Your task to perform on an android device: change keyboard looks Image 0: 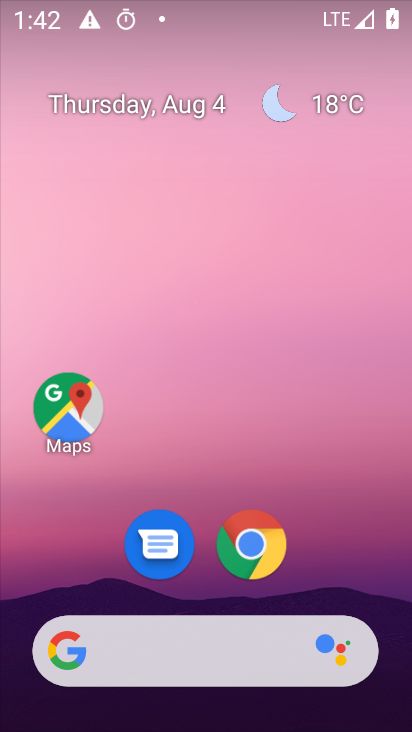
Step 0: drag from (388, 636) to (331, 34)
Your task to perform on an android device: change keyboard looks Image 1: 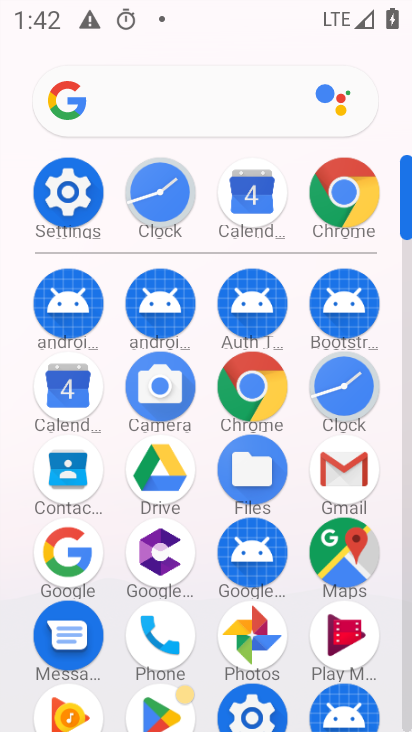
Step 1: click (79, 206)
Your task to perform on an android device: change keyboard looks Image 2: 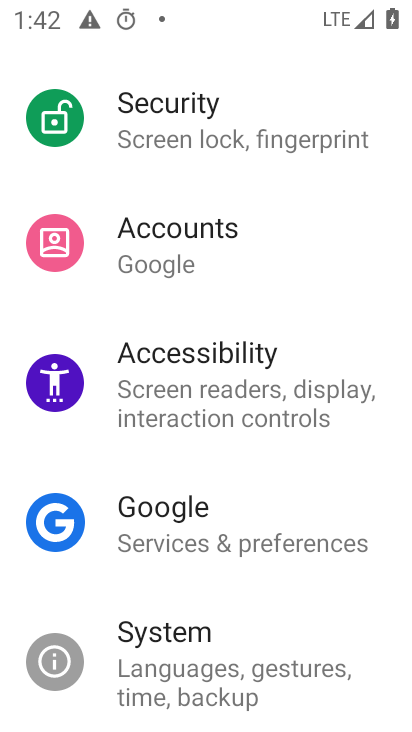
Step 2: drag from (338, 634) to (284, 150)
Your task to perform on an android device: change keyboard looks Image 3: 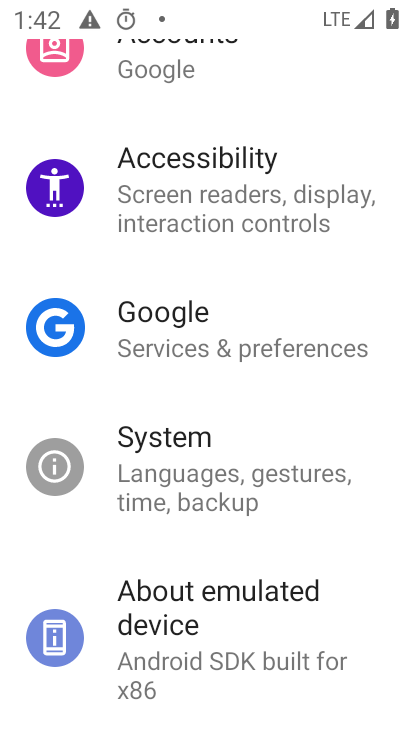
Step 3: click (161, 435)
Your task to perform on an android device: change keyboard looks Image 4: 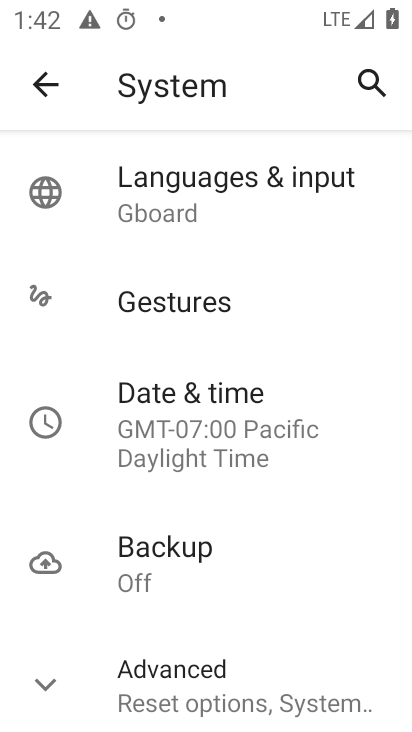
Step 4: drag from (259, 632) to (284, 281)
Your task to perform on an android device: change keyboard looks Image 5: 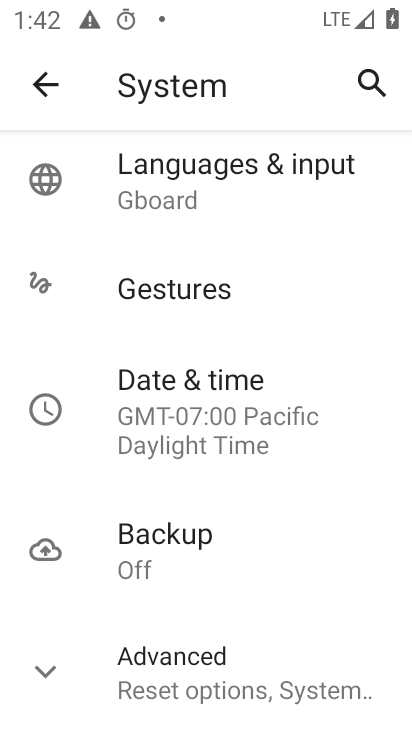
Step 5: drag from (305, 249) to (310, 612)
Your task to perform on an android device: change keyboard looks Image 6: 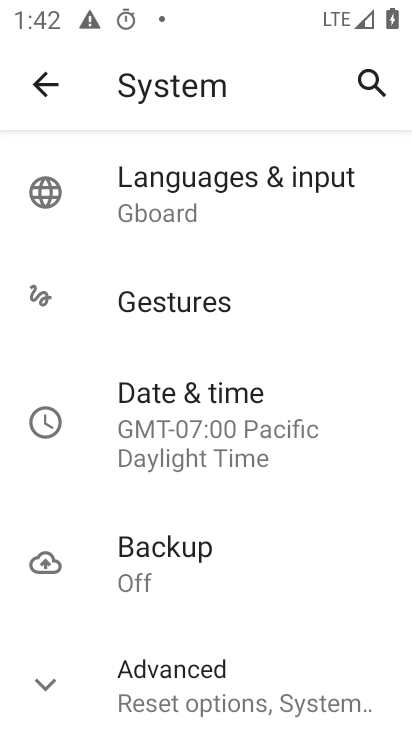
Step 6: click (187, 178)
Your task to perform on an android device: change keyboard looks Image 7: 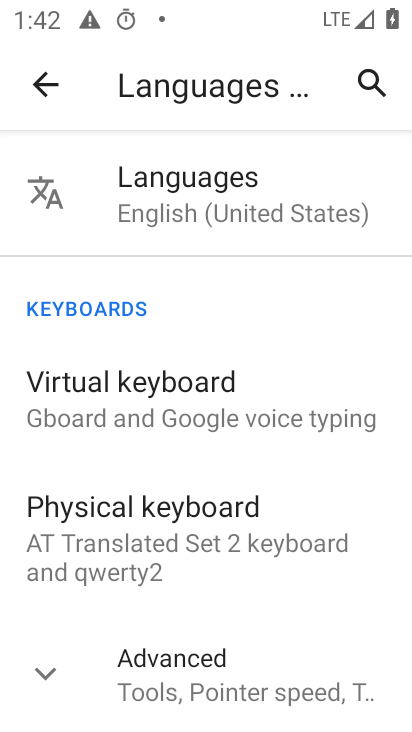
Step 7: click (82, 368)
Your task to perform on an android device: change keyboard looks Image 8: 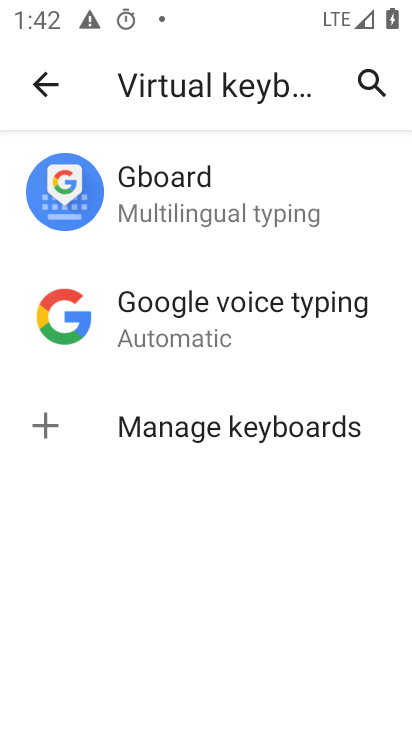
Step 8: click (158, 183)
Your task to perform on an android device: change keyboard looks Image 9: 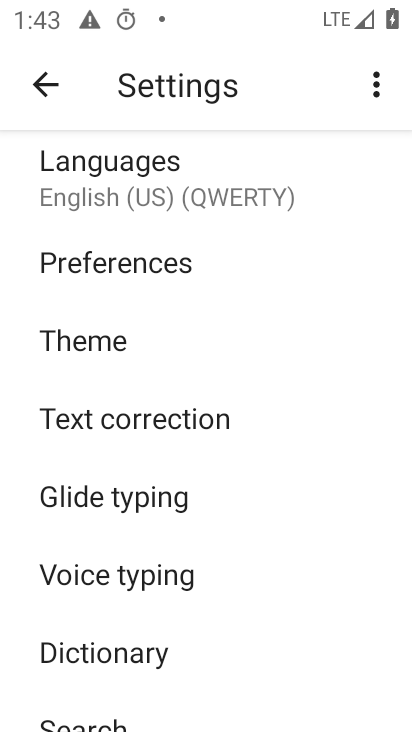
Step 9: click (83, 342)
Your task to perform on an android device: change keyboard looks Image 10: 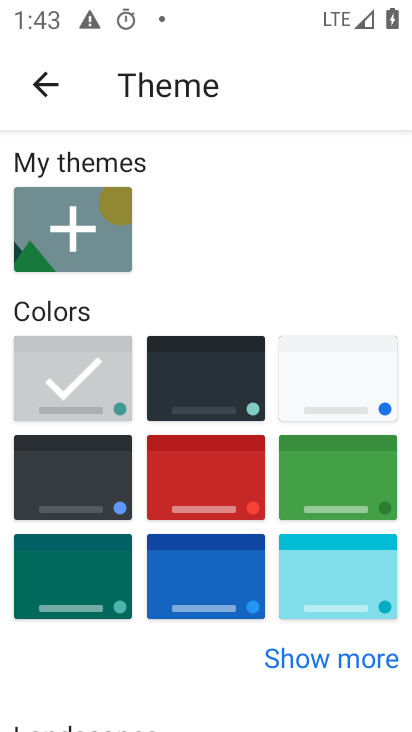
Step 10: click (206, 456)
Your task to perform on an android device: change keyboard looks Image 11: 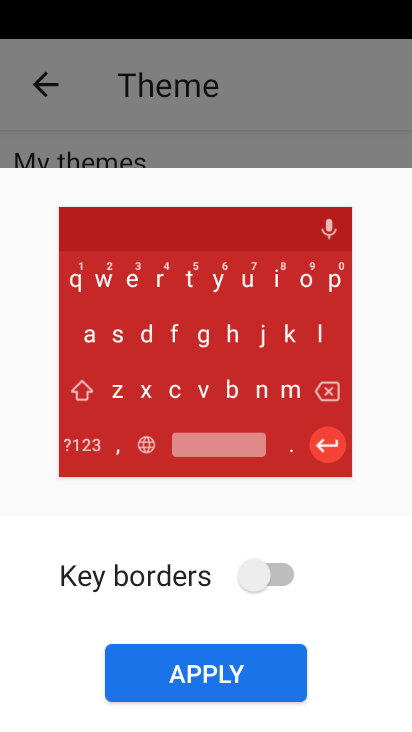
Step 11: click (304, 568)
Your task to perform on an android device: change keyboard looks Image 12: 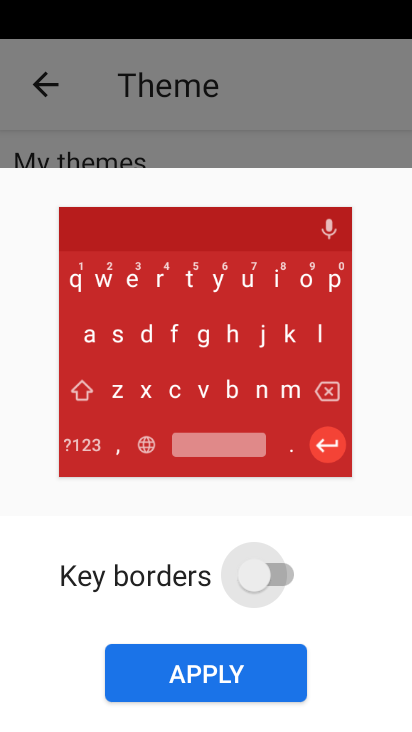
Step 12: click (277, 573)
Your task to perform on an android device: change keyboard looks Image 13: 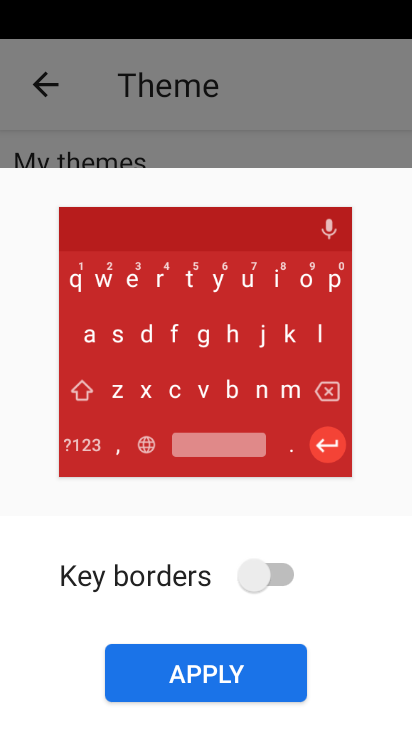
Step 13: click (264, 666)
Your task to perform on an android device: change keyboard looks Image 14: 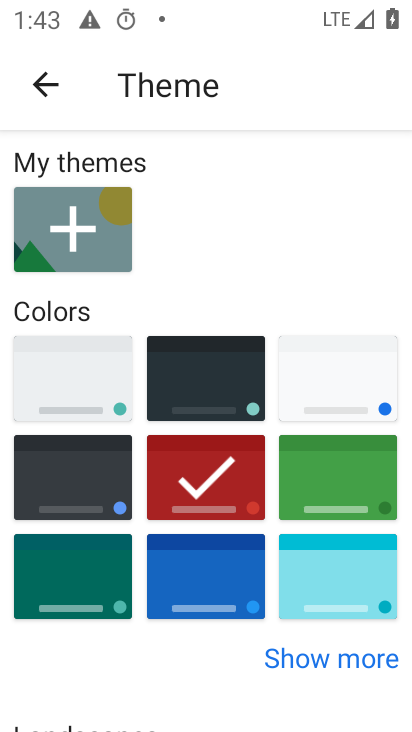
Step 14: task complete